Your task to perform on an android device: Check the weather Image 0: 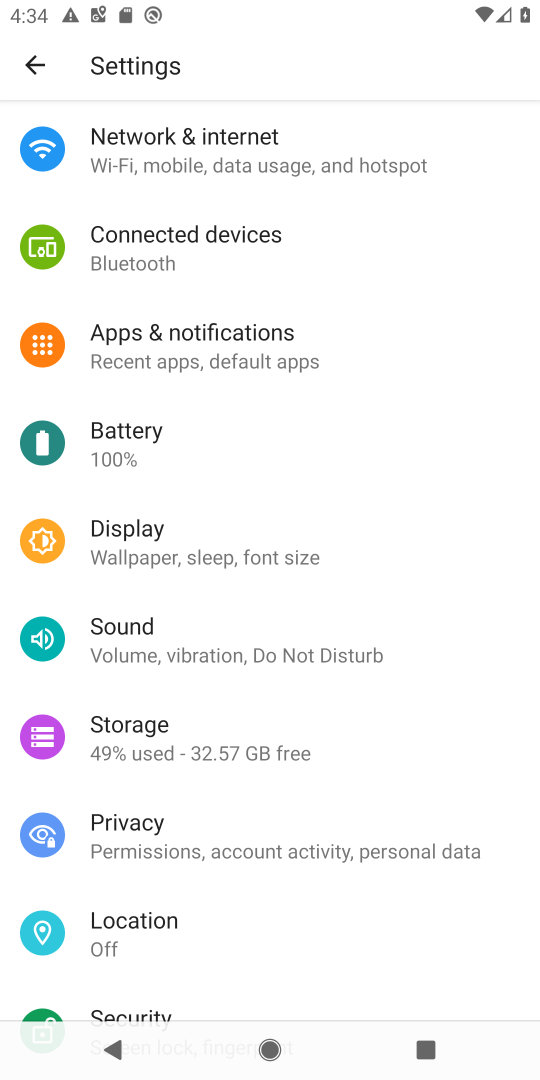
Step 0: drag from (305, 854) to (381, 99)
Your task to perform on an android device: Check the weather Image 1: 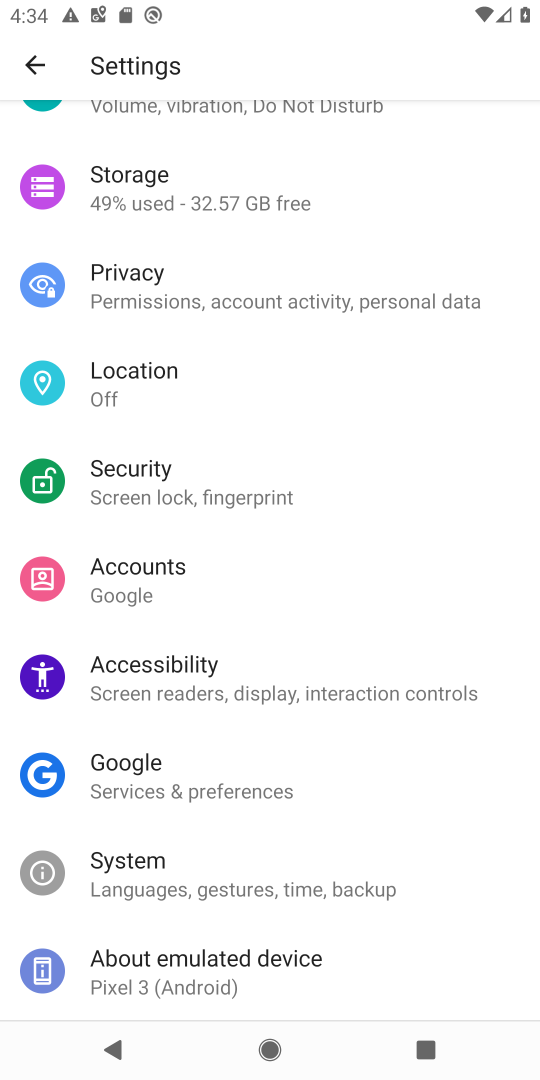
Step 1: press back button
Your task to perform on an android device: Check the weather Image 2: 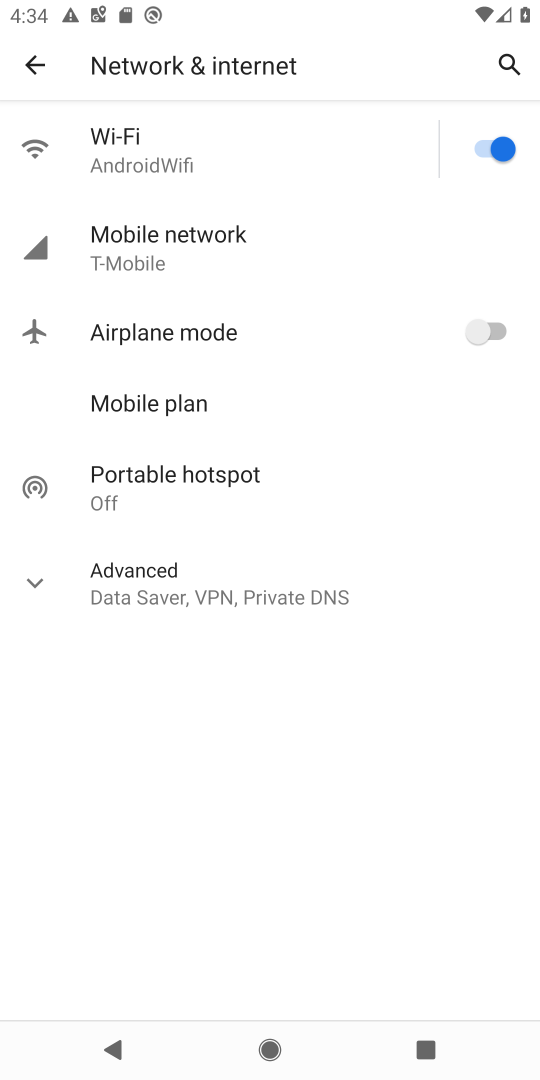
Step 2: press back button
Your task to perform on an android device: Check the weather Image 3: 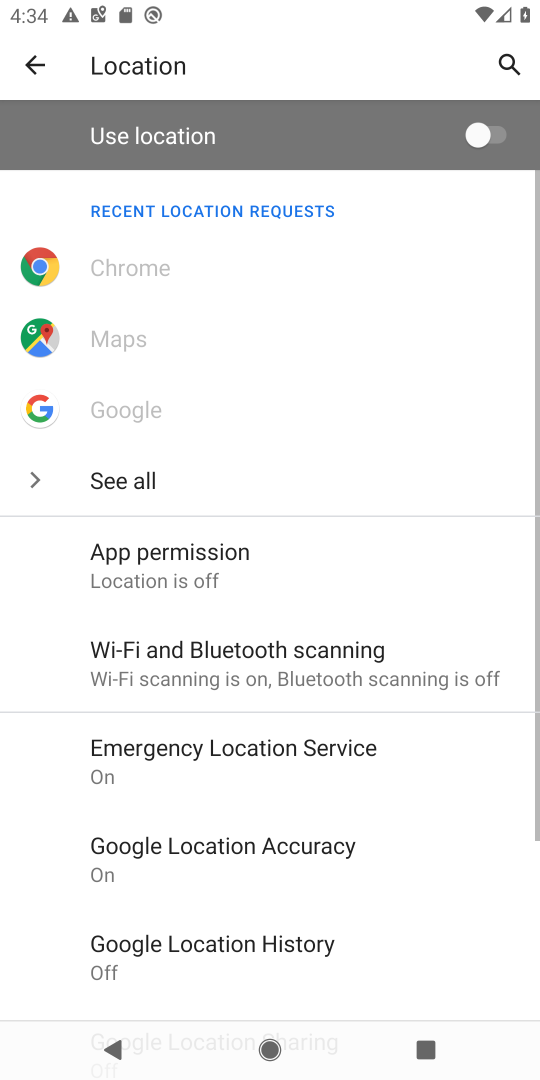
Step 3: press back button
Your task to perform on an android device: Check the weather Image 4: 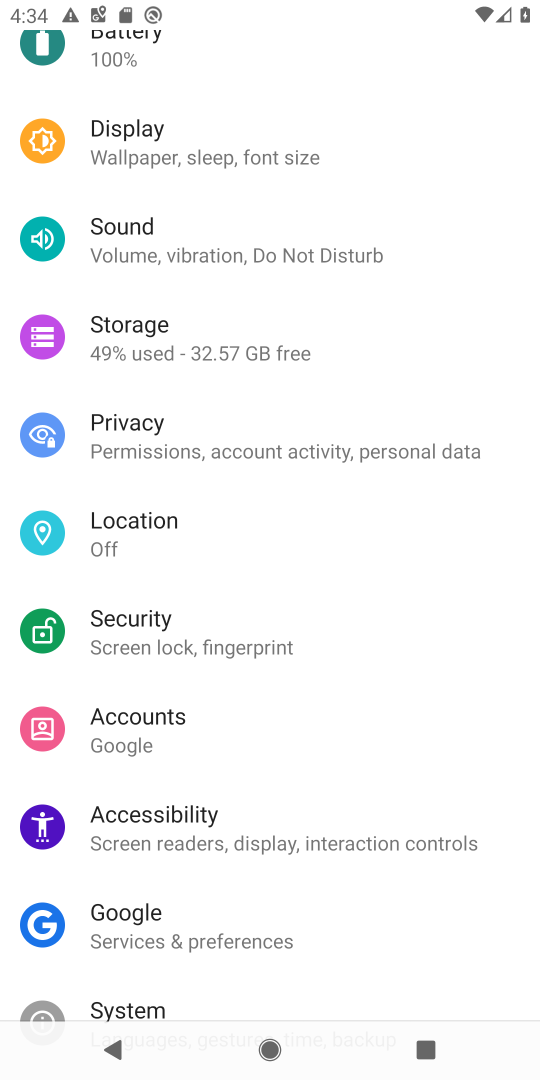
Step 4: press back button
Your task to perform on an android device: Check the weather Image 5: 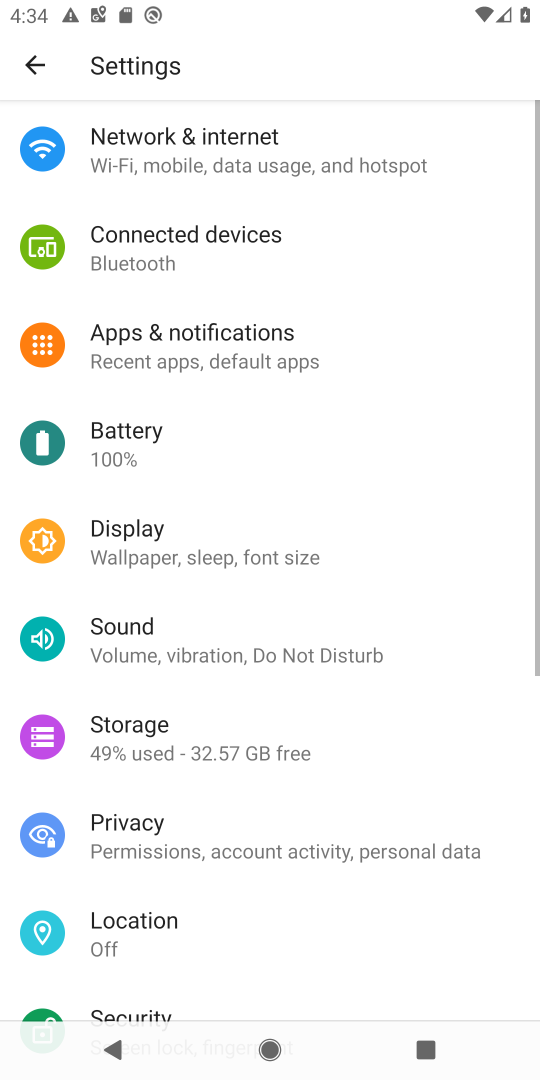
Step 5: press back button
Your task to perform on an android device: Check the weather Image 6: 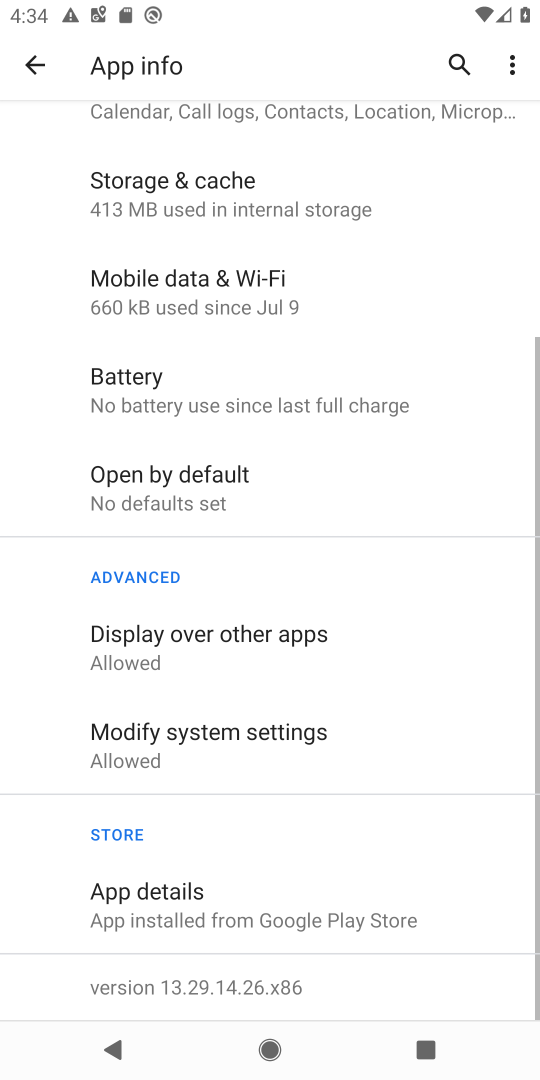
Step 6: press back button
Your task to perform on an android device: Check the weather Image 7: 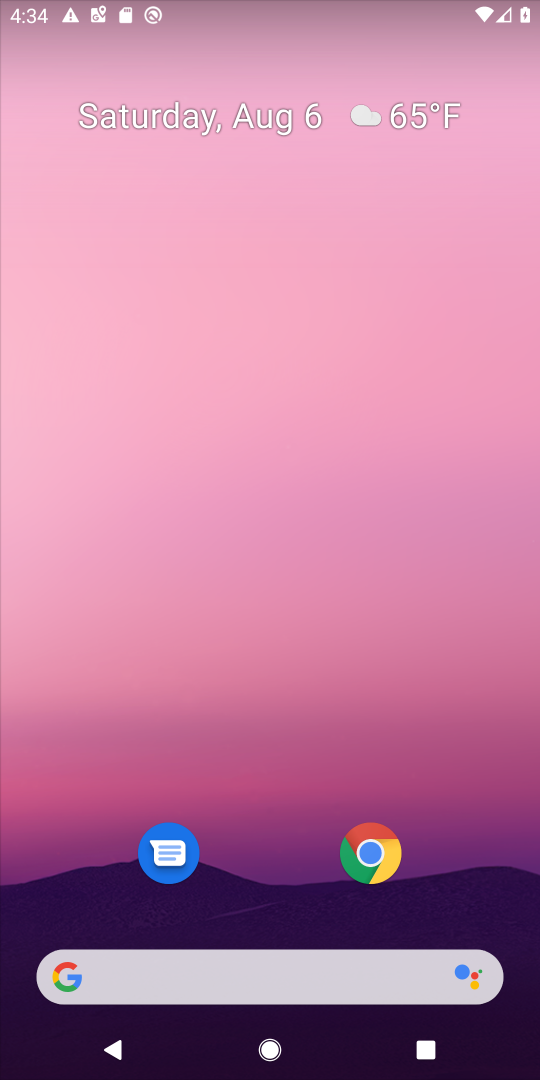
Step 7: click (224, 965)
Your task to perform on an android device: Check the weather Image 8: 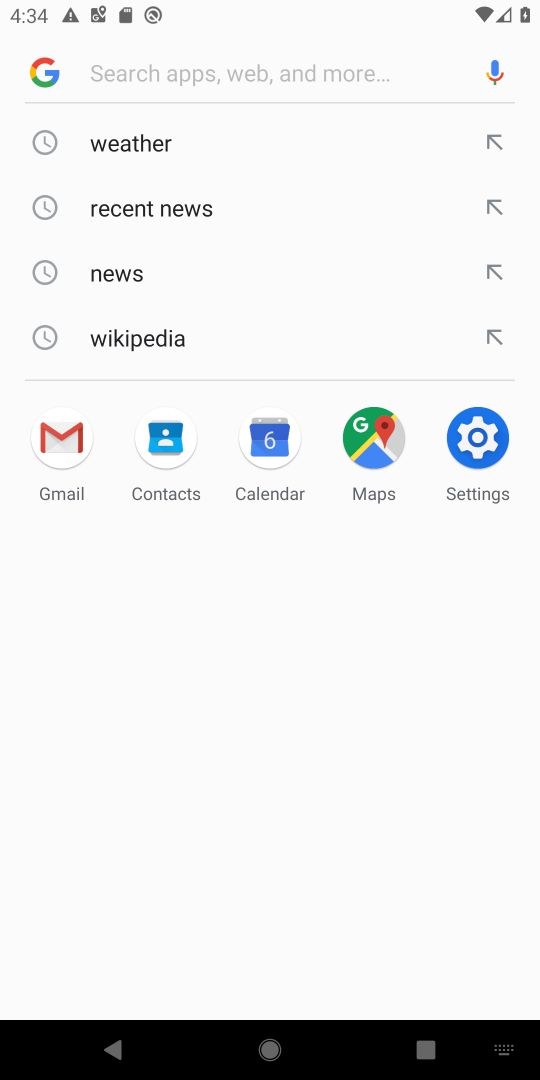
Step 8: click (158, 129)
Your task to perform on an android device: Check the weather Image 9: 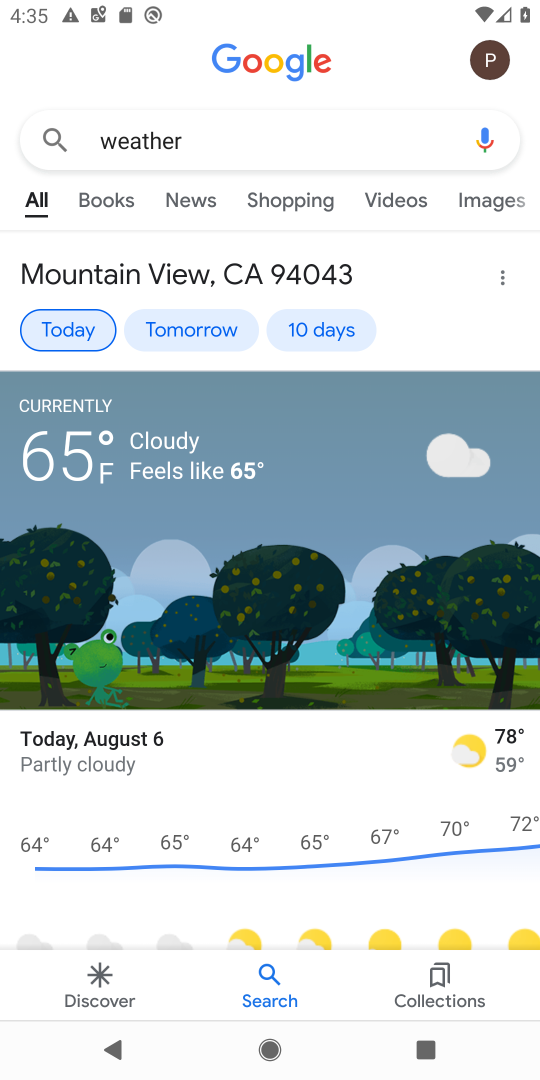
Step 9: task complete